Your task to perform on an android device: Open privacy settings Image 0: 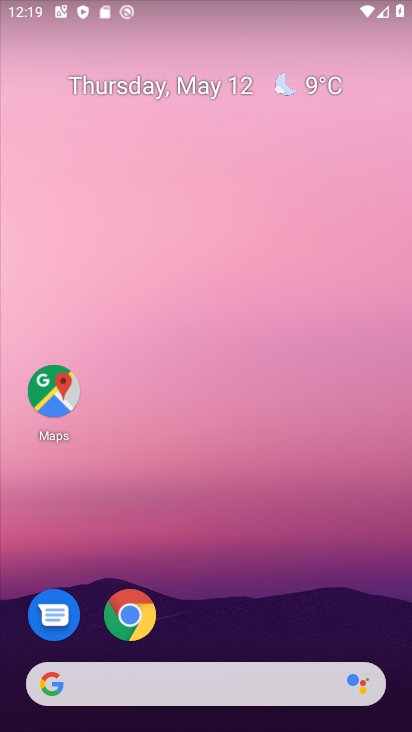
Step 0: drag from (255, 530) to (232, 26)
Your task to perform on an android device: Open privacy settings Image 1: 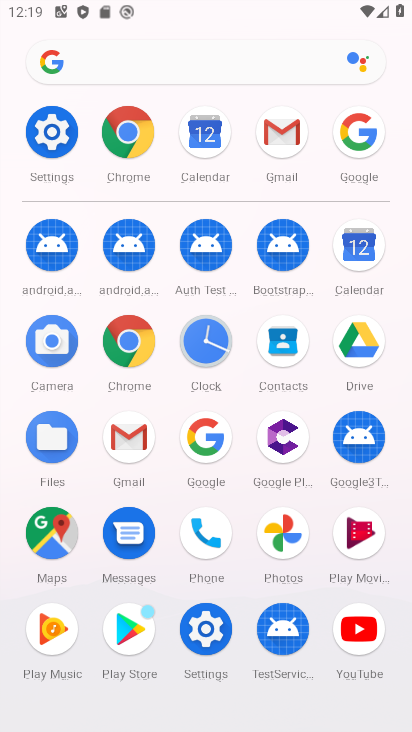
Step 1: click (56, 140)
Your task to perform on an android device: Open privacy settings Image 2: 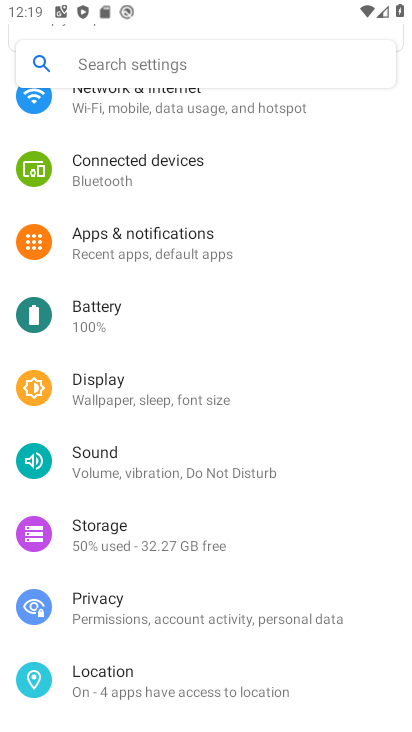
Step 2: click (120, 605)
Your task to perform on an android device: Open privacy settings Image 3: 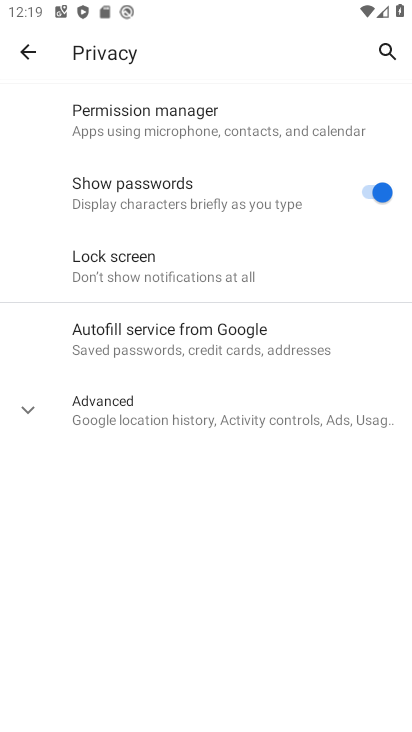
Step 3: task complete